Your task to perform on an android device: Open Youtube and go to the subscriptions tab Image 0: 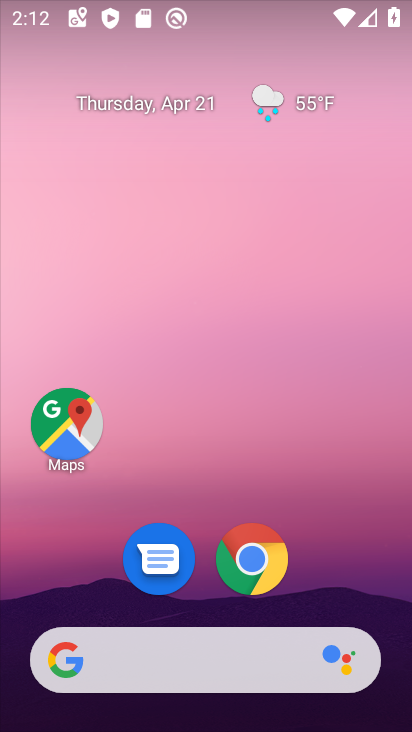
Step 0: drag from (208, 554) to (237, 453)
Your task to perform on an android device: Open Youtube and go to the subscriptions tab Image 1: 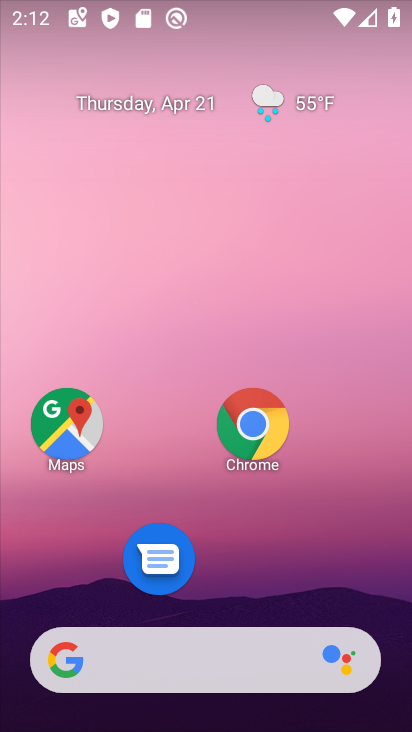
Step 1: drag from (236, 566) to (234, 15)
Your task to perform on an android device: Open Youtube and go to the subscriptions tab Image 2: 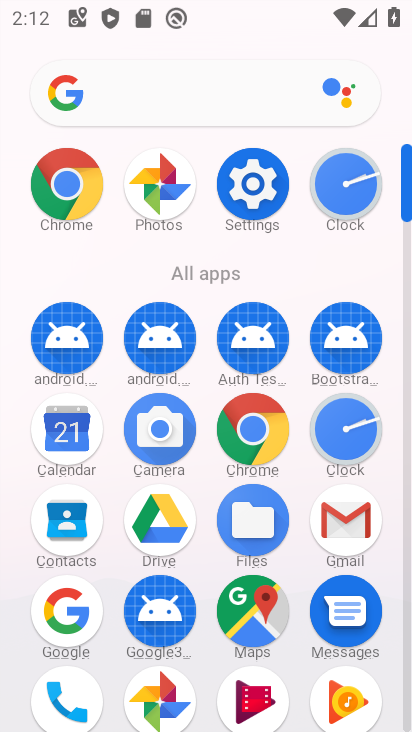
Step 2: drag from (206, 656) to (220, 114)
Your task to perform on an android device: Open Youtube and go to the subscriptions tab Image 3: 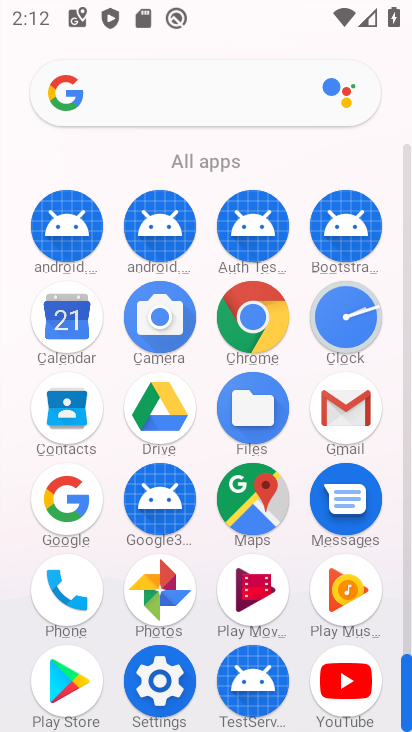
Step 3: click (351, 672)
Your task to perform on an android device: Open Youtube and go to the subscriptions tab Image 4: 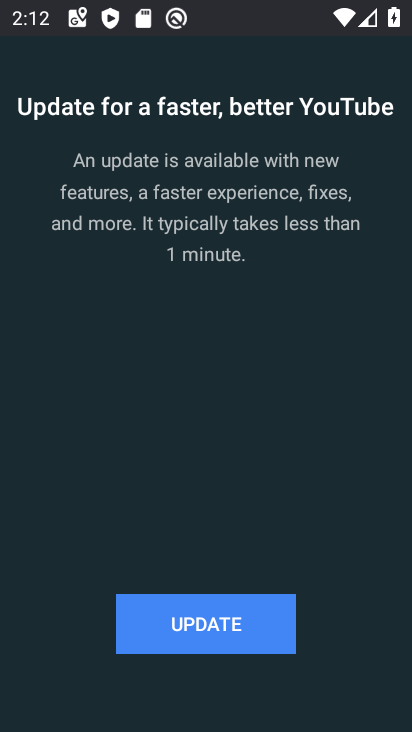
Step 4: click (214, 630)
Your task to perform on an android device: Open Youtube and go to the subscriptions tab Image 5: 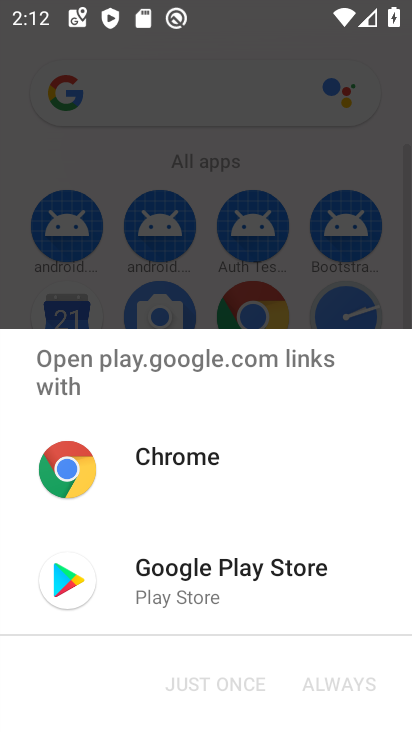
Step 5: click (157, 573)
Your task to perform on an android device: Open Youtube and go to the subscriptions tab Image 6: 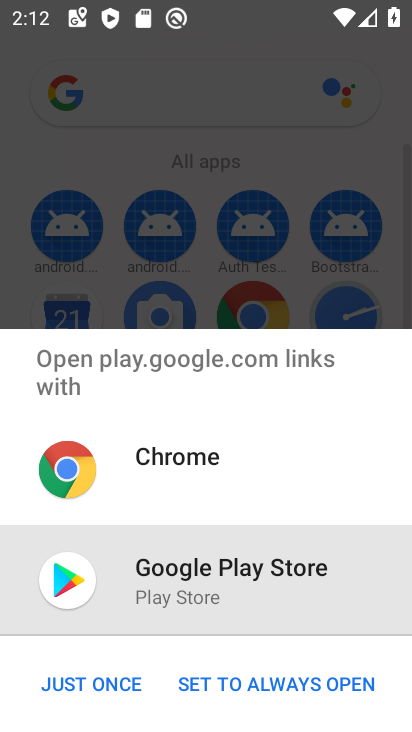
Step 6: click (118, 680)
Your task to perform on an android device: Open Youtube and go to the subscriptions tab Image 7: 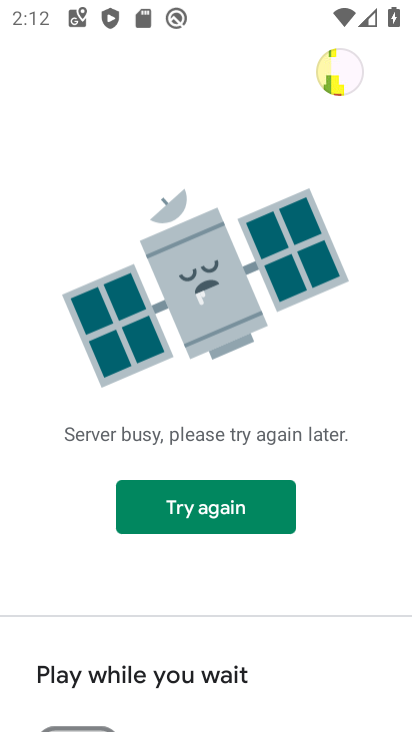
Step 7: task complete